Your task to perform on an android device: change notification settings in the gmail app Image 0: 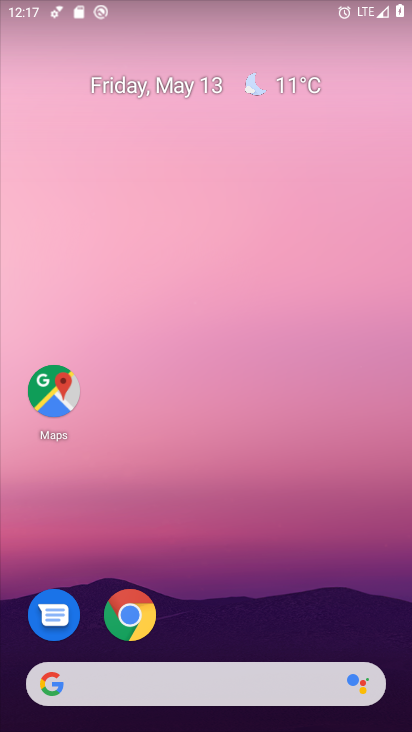
Step 0: drag from (252, 544) to (307, 45)
Your task to perform on an android device: change notification settings in the gmail app Image 1: 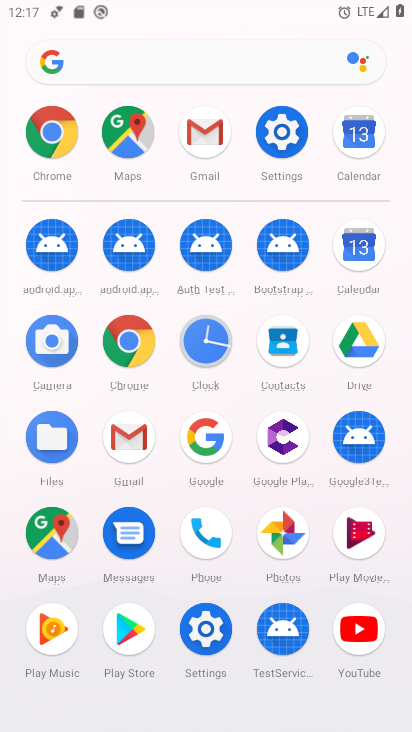
Step 1: click (216, 139)
Your task to perform on an android device: change notification settings in the gmail app Image 2: 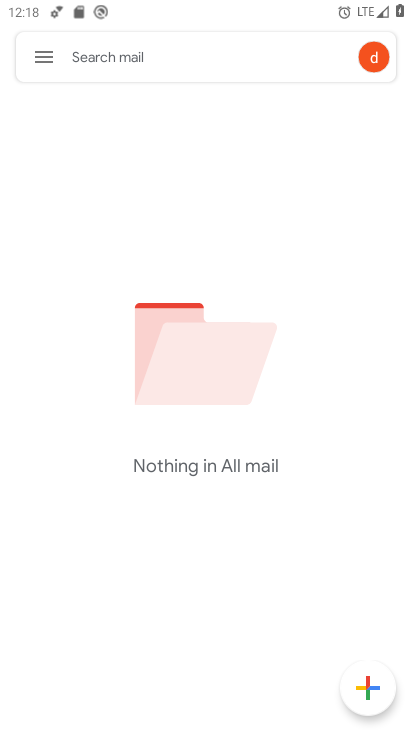
Step 2: click (44, 58)
Your task to perform on an android device: change notification settings in the gmail app Image 3: 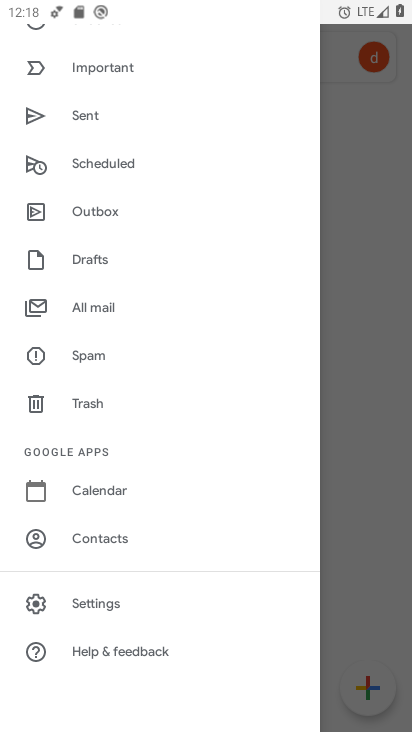
Step 3: click (81, 599)
Your task to perform on an android device: change notification settings in the gmail app Image 4: 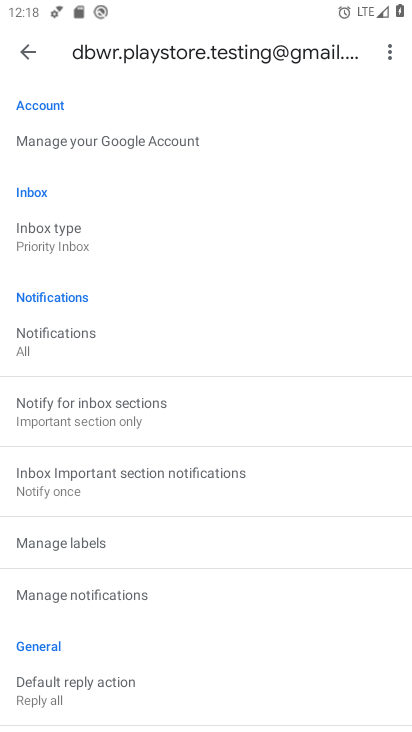
Step 4: click (152, 592)
Your task to perform on an android device: change notification settings in the gmail app Image 5: 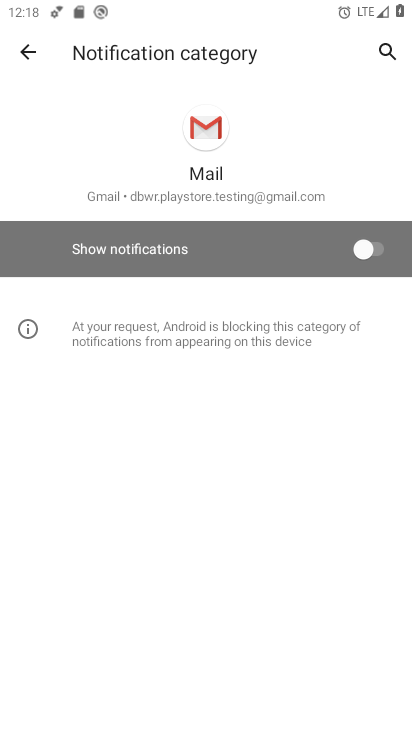
Step 5: click (373, 249)
Your task to perform on an android device: change notification settings in the gmail app Image 6: 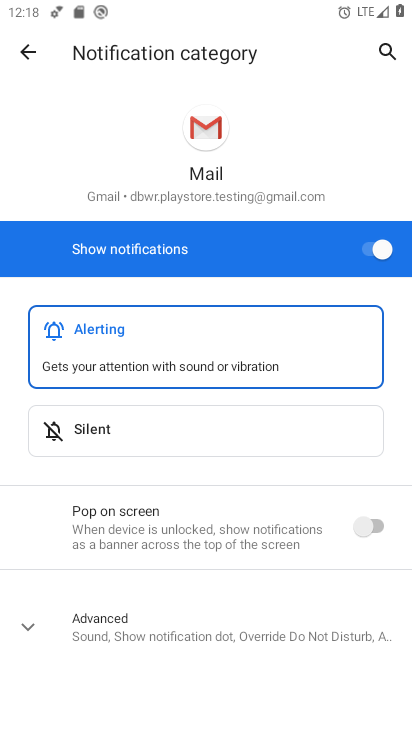
Step 6: task complete